Your task to perform on an android device: What is the capital of Brazil? Image 0: 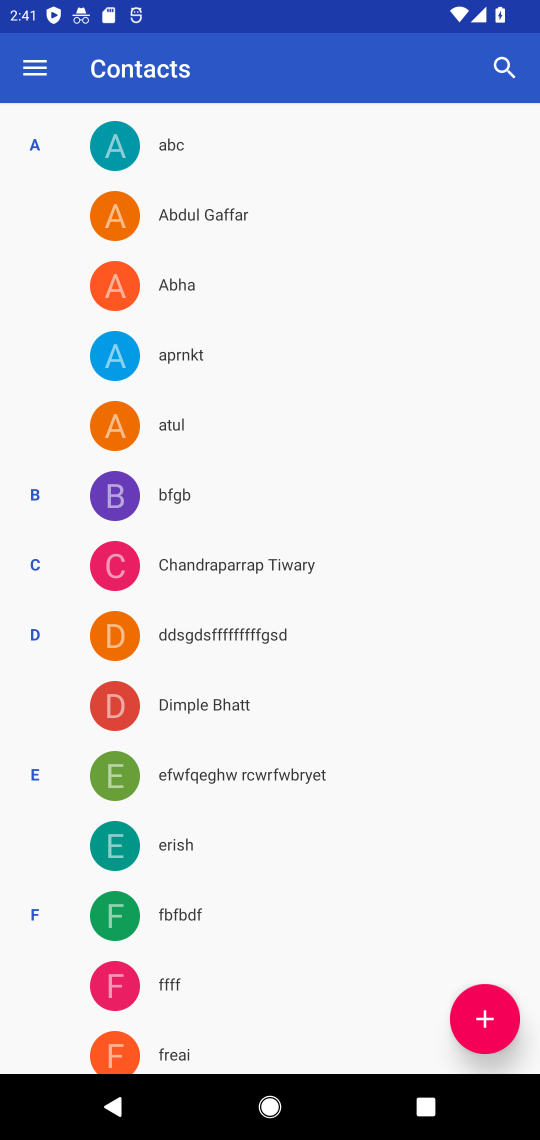
Step 0: press home button
Your task to perform on an android device: What is the capital of Brazil? Image 1: 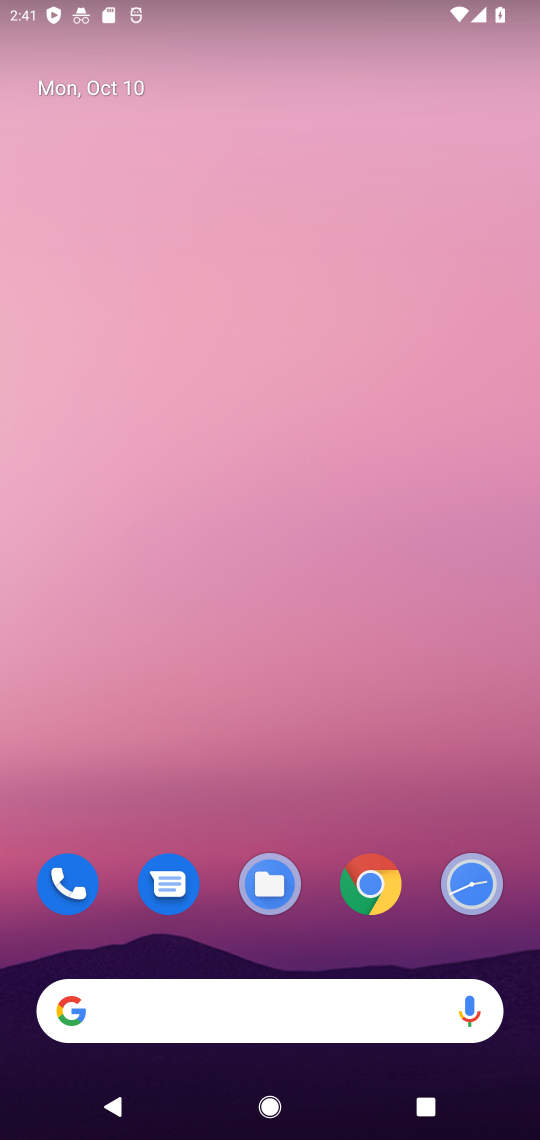
Step 1: click (274, 1017)
Your task to perform on an android device: What is the capital of Brazil? Image 2: 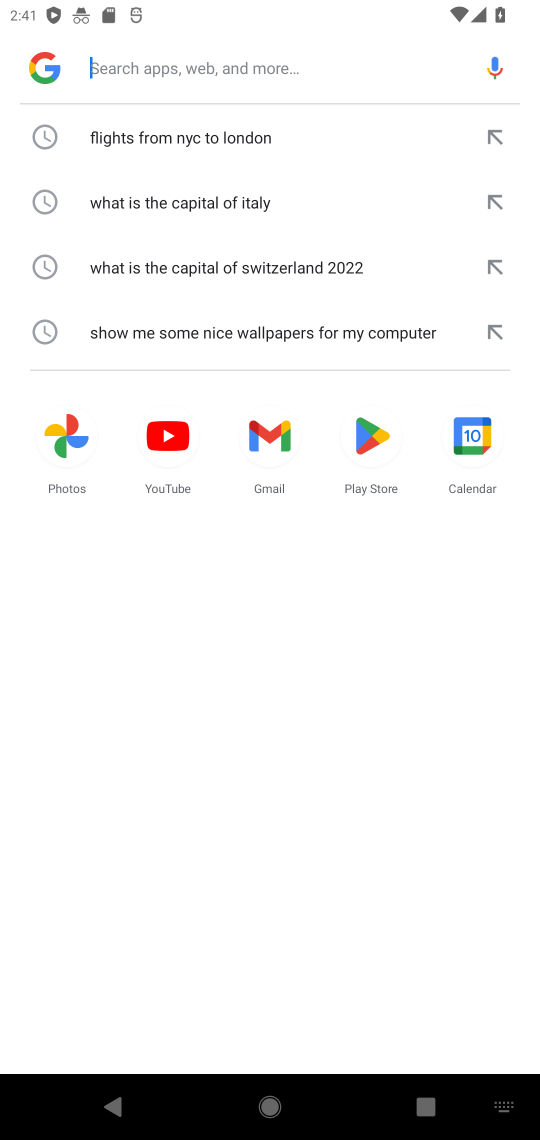
Step 2: type "What is the capital of Brazil?"
Your task to perform on an android device: What is the capital of Brazil? Image 3: 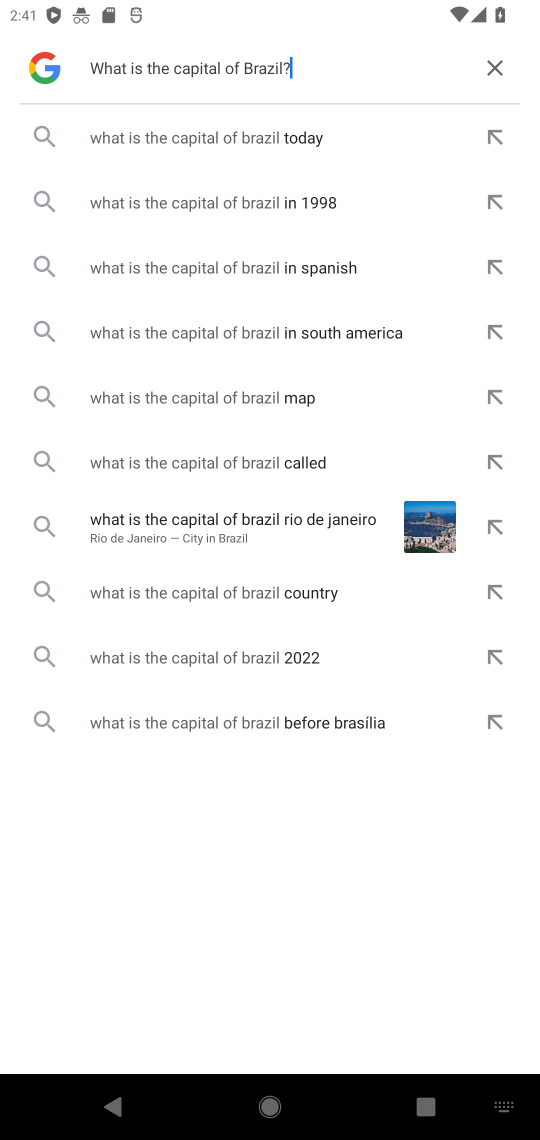
Step 3: click (186, 131)
Your task to perform on an android device: What is the capital of Brazil? Image 4: 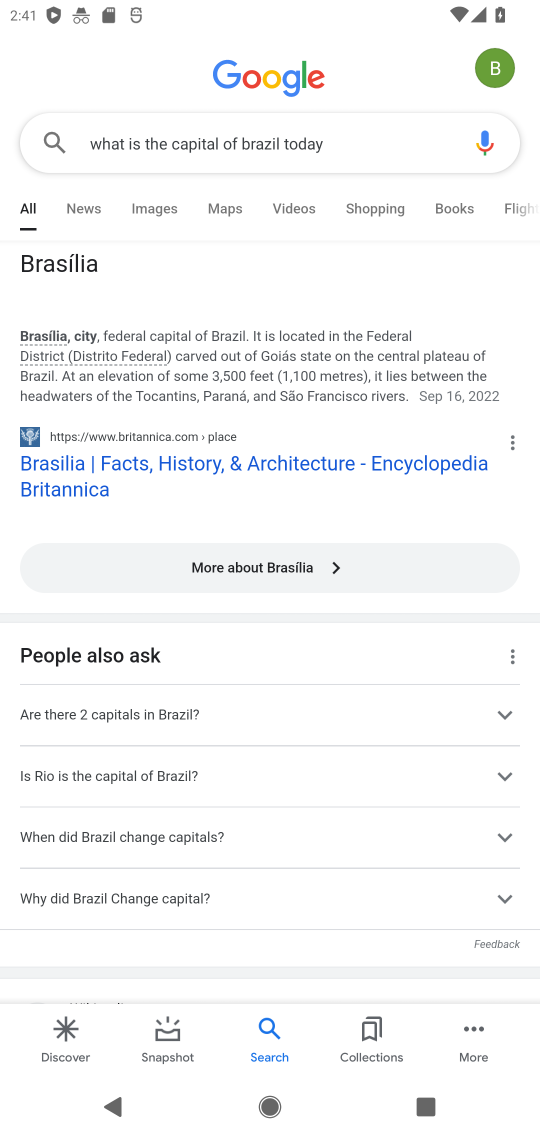
Step 4: task complete